Your task to perform on an android device: Open Youtube and go to "Your channel" Image 0: 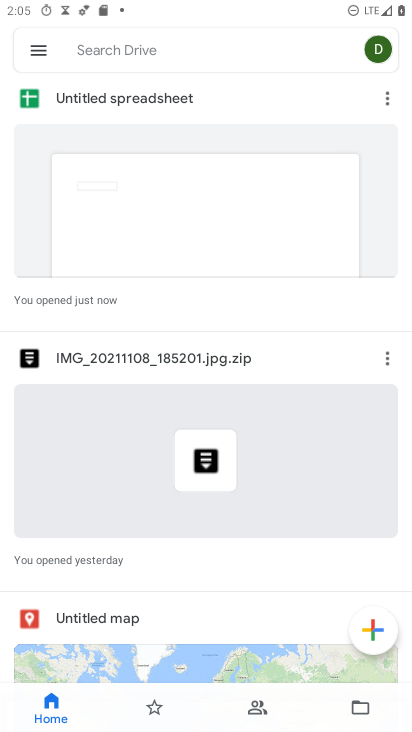
Step 0: press home button
Your task to perform on an android device: Open Youtube and go to "Your channel" Image 1: 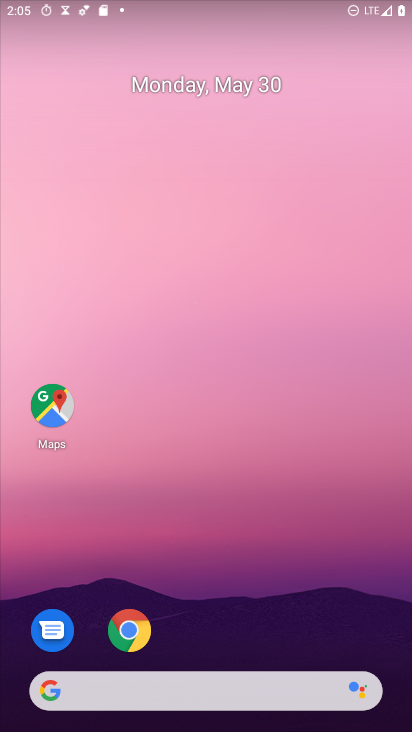
Step 1: drag from (325, 688) to (350, 161)
Your task to perform on an android device: Open Youtube and go to "Your channel" Image 2: 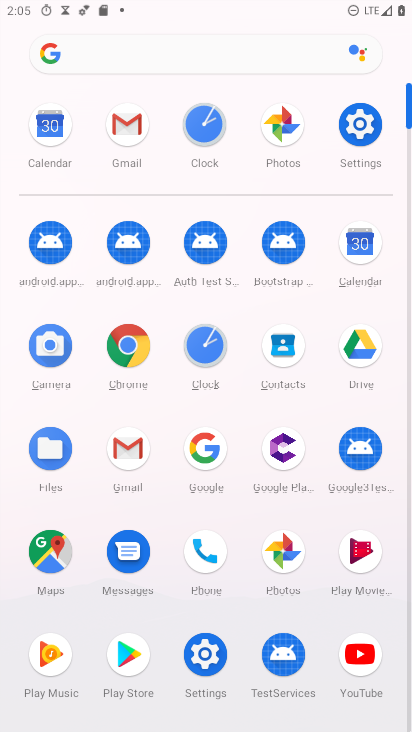
Step 2: click (347, 651)
Your task to perform on an android device: Open Youtube and go to "Your channel" Image 3: 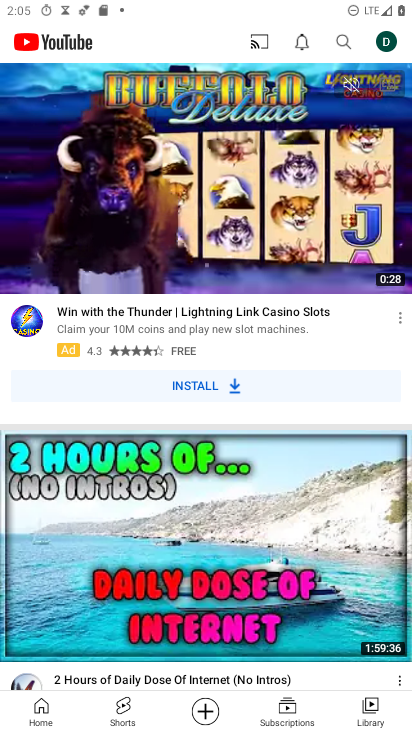
Step 3: click (374, 50)
Your task to perform on an android device: Open Youtube and go to "Your channel" Image 4: 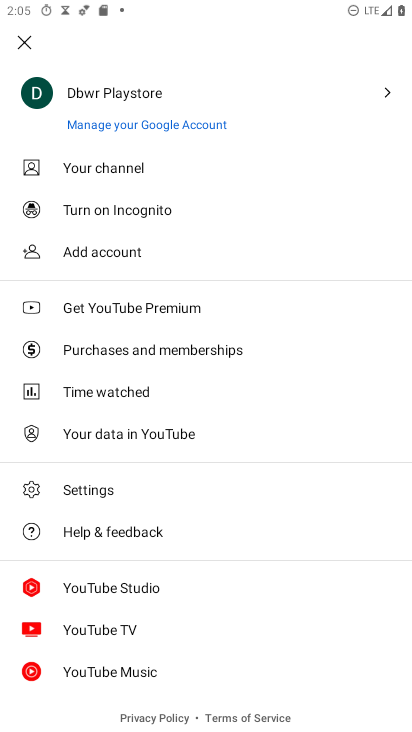
Step 4: click (125, 169)
Your task to perform on an android device: Open Youtube and go to "Your channel" Image 5: 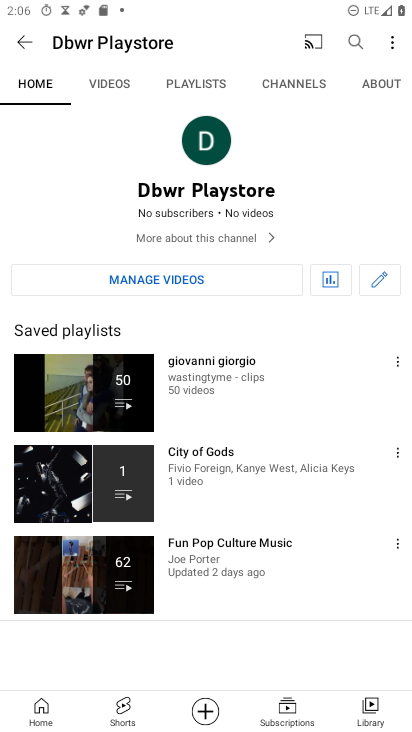
Step 5: task complete